Your task to perform on an android device: What's on my calendar tomorrow? Image 0: 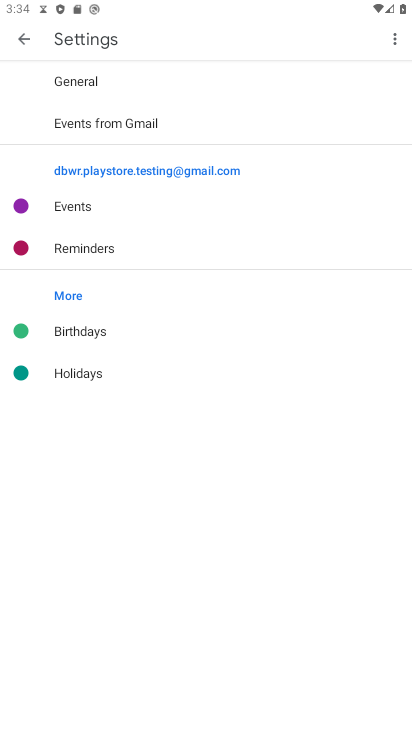
Step 0: click (20, 39)
Your task to perform on an android device: What's on my calendar tomorrow? Image 1: 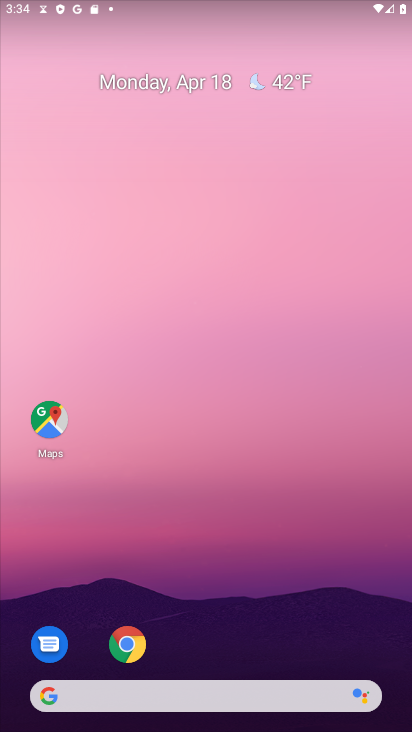
Step 1: drag from (245, 567) to (199, 110)
Your task to perform on an android device: What's on my calendar tomorrow? Image 2: 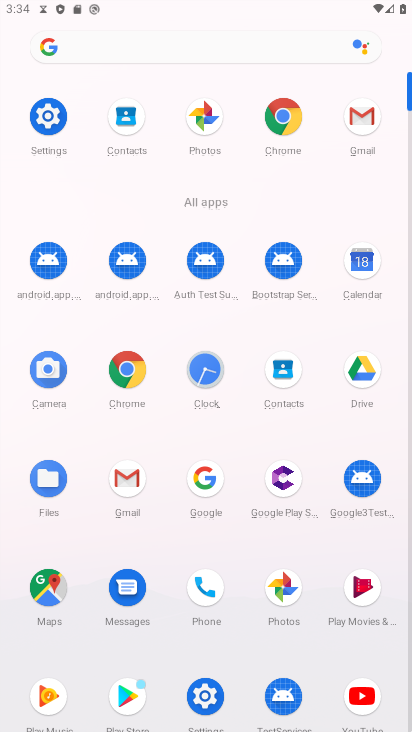
Step 2: click (372, 253)
Your task to perform on an android device: What's on my calendar tomorrow? Image 3: 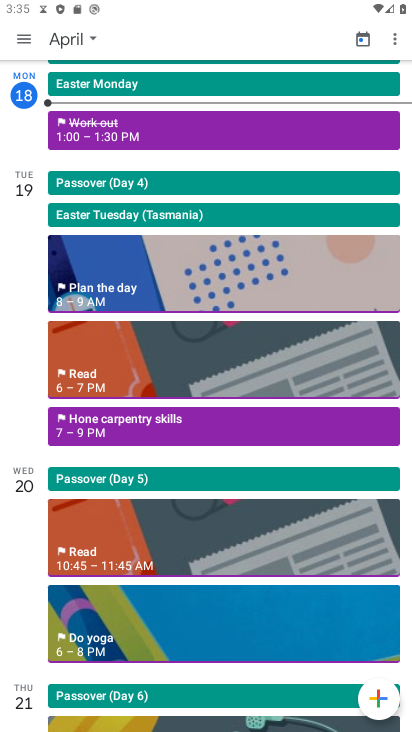
Step 3: task complete